Your task to perform on an android device: turn off location history Image 0: 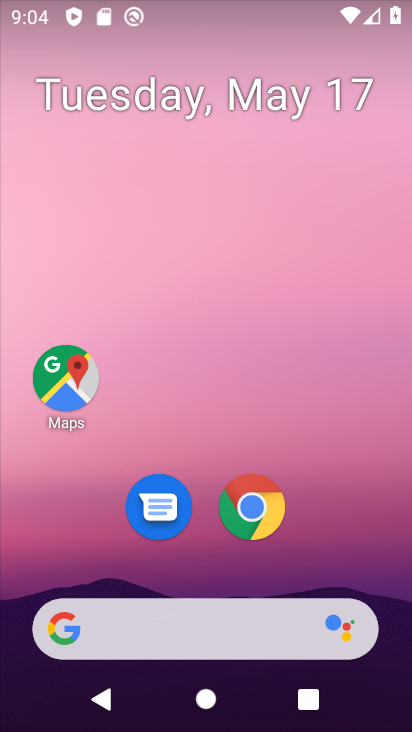
Step 0: drag from (256, 670) to (212, 267)
Your task to perform on an android device: turn off location history Image 1: 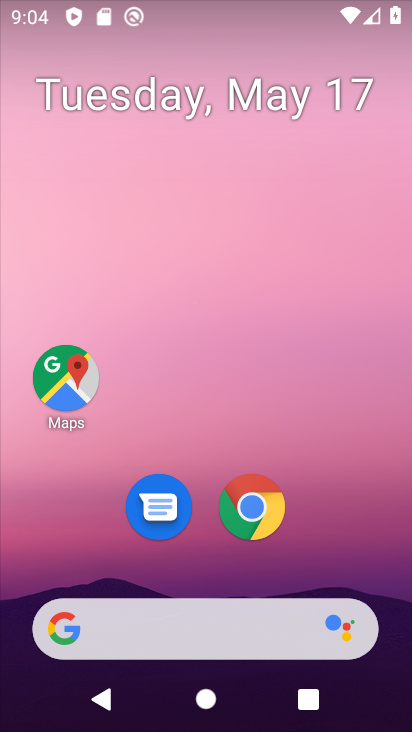
Step 1: drag from (235, 433) to (192, 150)
Your task to perform on an android device: turn off location history Image 2: 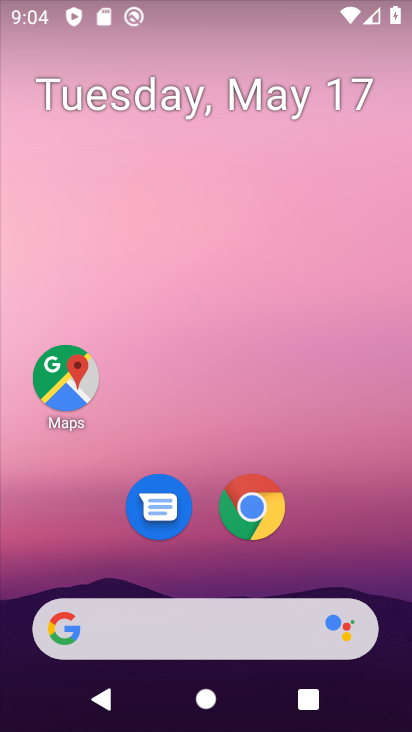
Step 2: drag from (223, 541) to (175, 110)
Your task to perform on an android device: turn off location history Image 3: 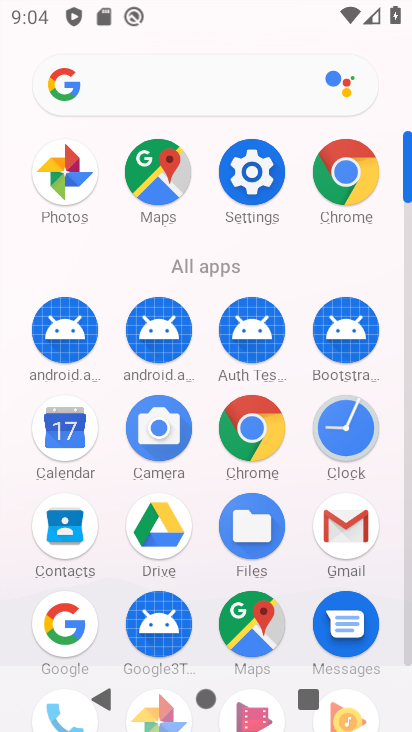
Step 3: click (238, 627)
Your task to perform on an android device: turn off location history Image 4: 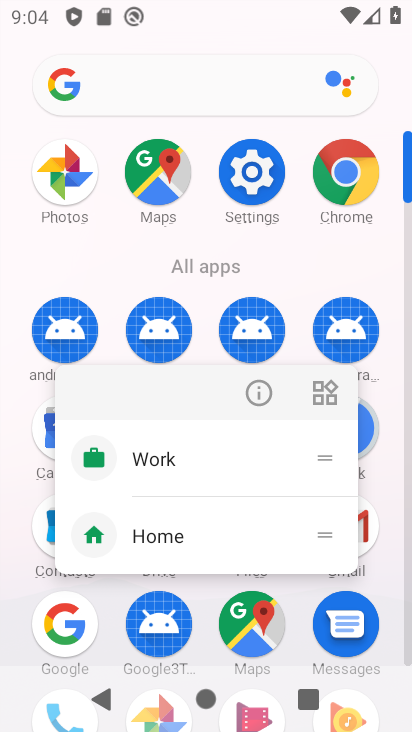
Step 4: click (266, 626)
Your task to perform on an android device: turn off location history Image 5: 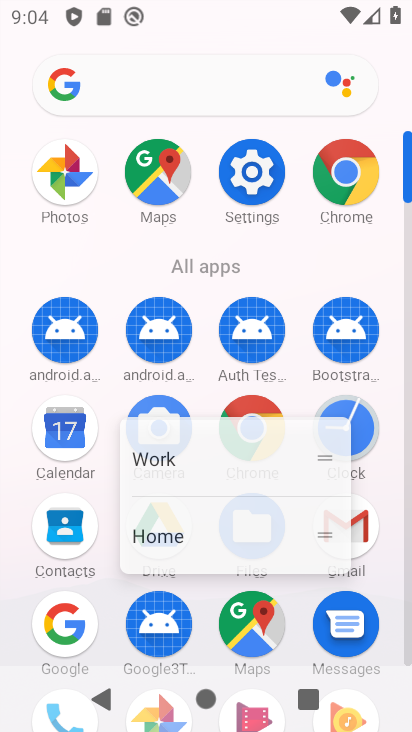
Step 5: click (267, 627)
Your task to perform on an android device: turn off location history Image 6: 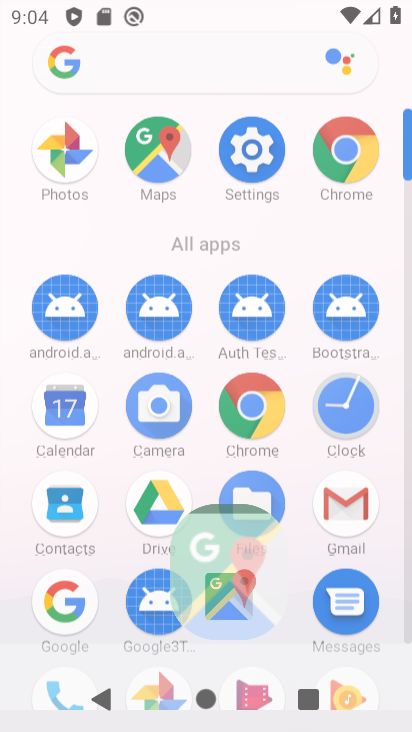
Step 6: click (269, 623)
Your task to perform on an android device: turn off location history Image 7: 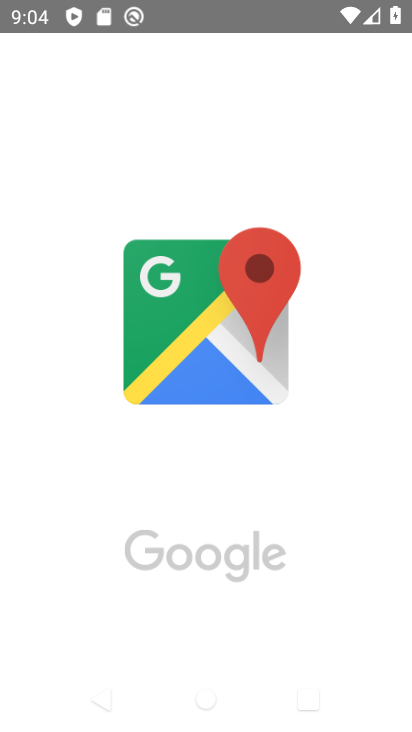
Step 7: click (268, 619)
Your task to perform on an android device: turn off location history Image 8: 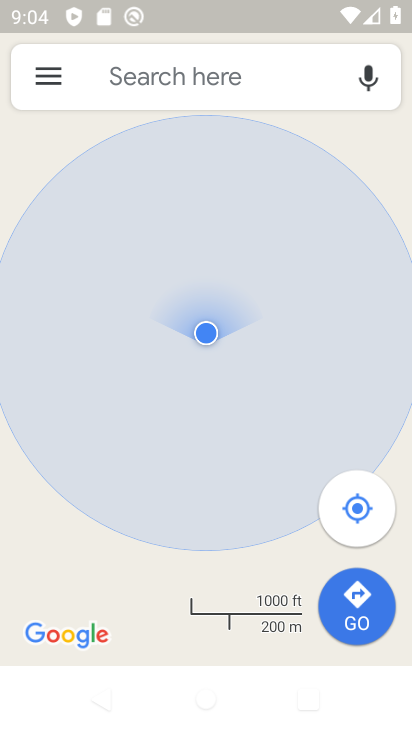
Step 8: click (54, 86)
Your task to perform on an android device: turn off location history Image 9: 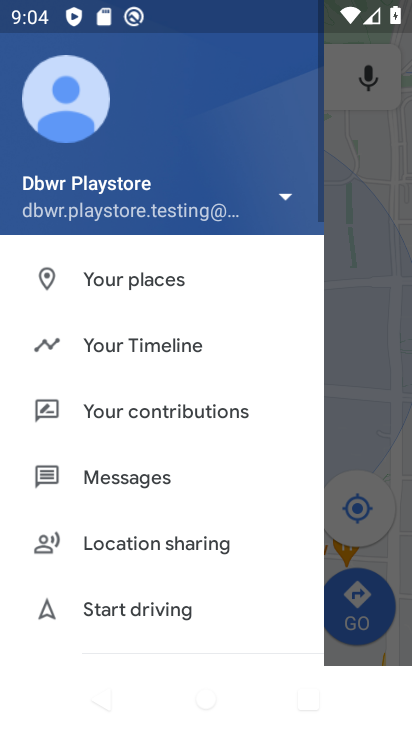
Step 9: click (54, 86)
Your task to perform on an android device: turn off location history Image 10: 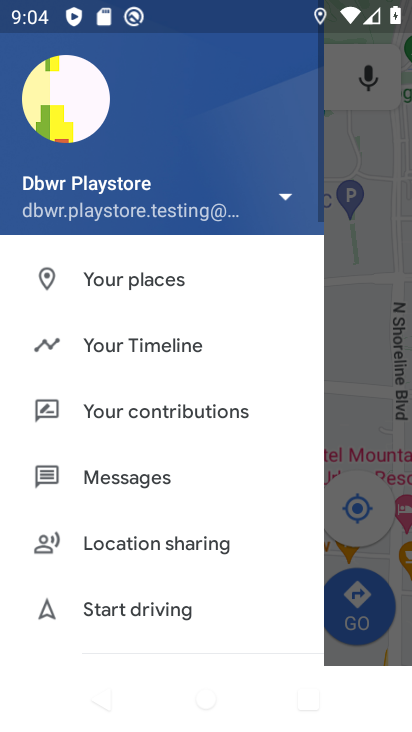
Step 10: click (166, 346)
Your task to perform on an android device: turn off location history Image 11: 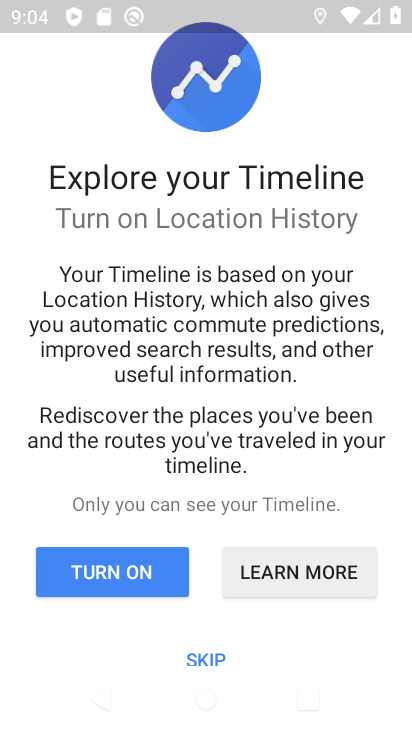
Step 11: click (120, 557)
Your task to perform on an android device: turn off location history Image 12: 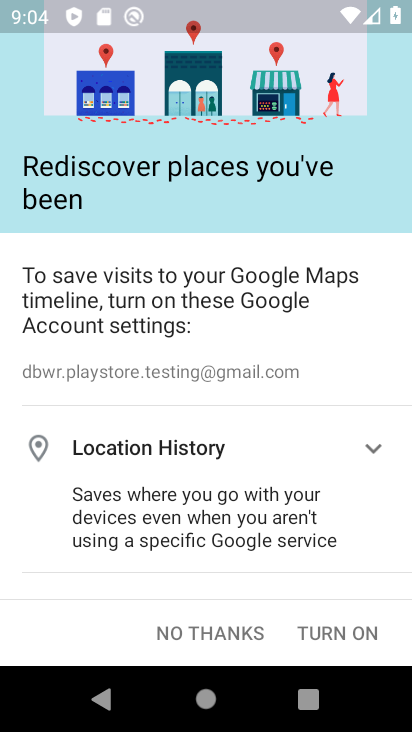
Step 12: click (339, 625)
Your task to perform on an android device: turn off location history Image 13: 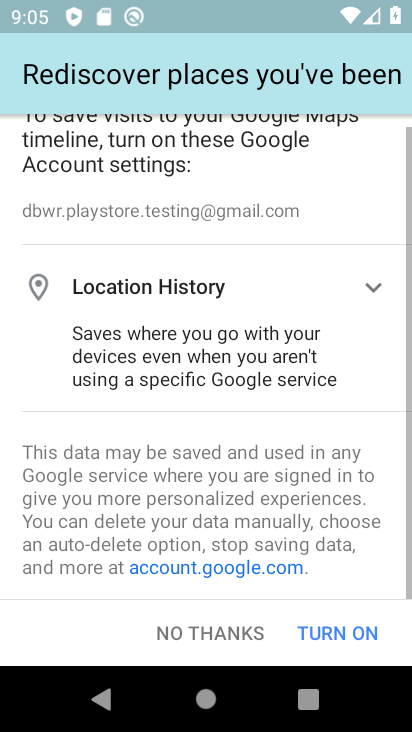
Step 13: click (321, 577)
Your task to perform on an android device: turn off location history Image 14: 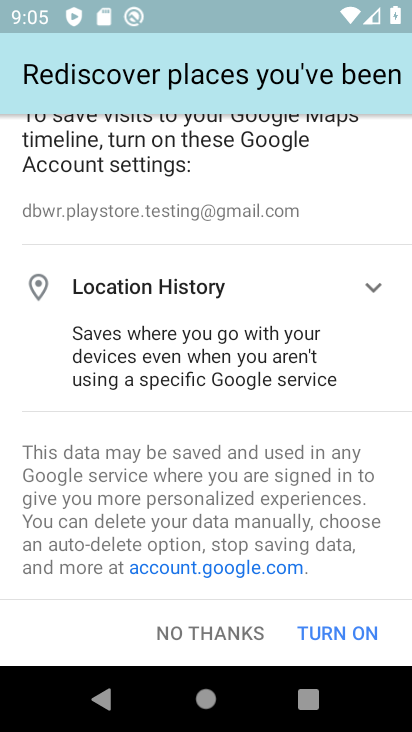
Step 14: drag from (250, 474) to (230, 277)
Your task to perform on an android device: turn off location history Image 15: 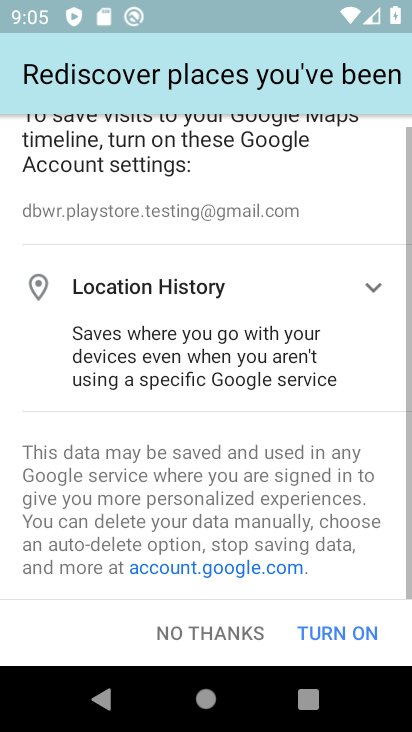
Step 15: click (323, 631)
Your task to perform on an android device: turn off location history Image 16: 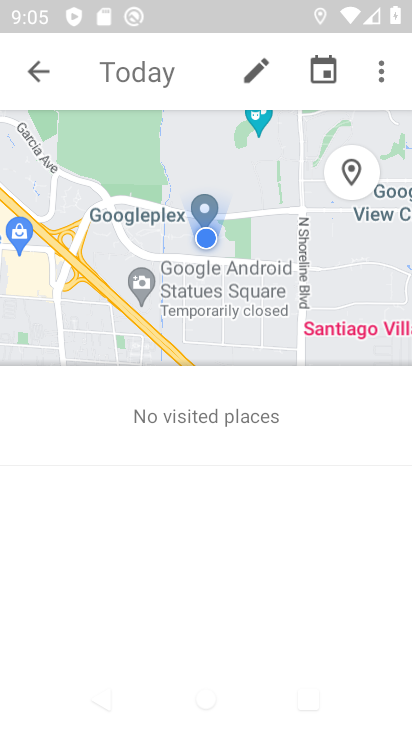
Step 16: task complete